Your task to perform on an android device: turn on the 12-hour format for clock Image 0: 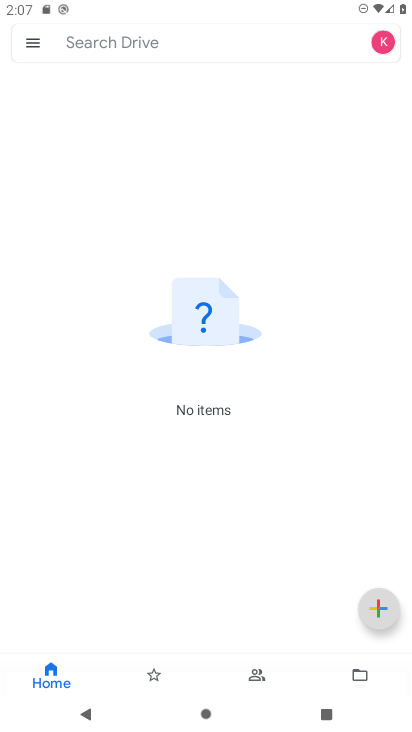
Step 0: press home button
Your task to perform on an android device: turn on the 12-hour format for clock Image 1: 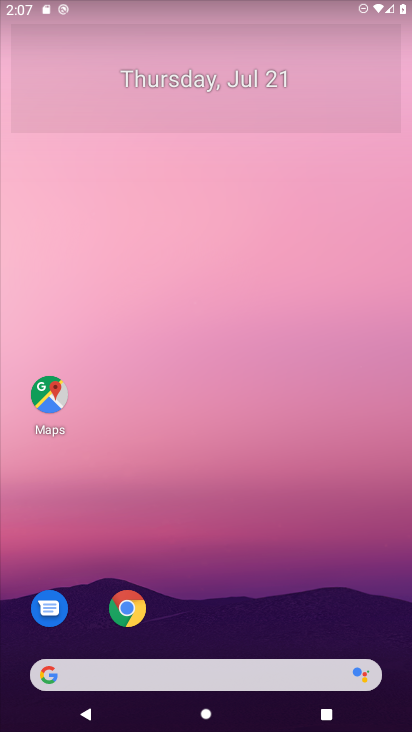
Step 1: drag from (232, 595) to (226, 158)
Your task to perform on an android device: turn on the 12-hour format for clock Image 2: 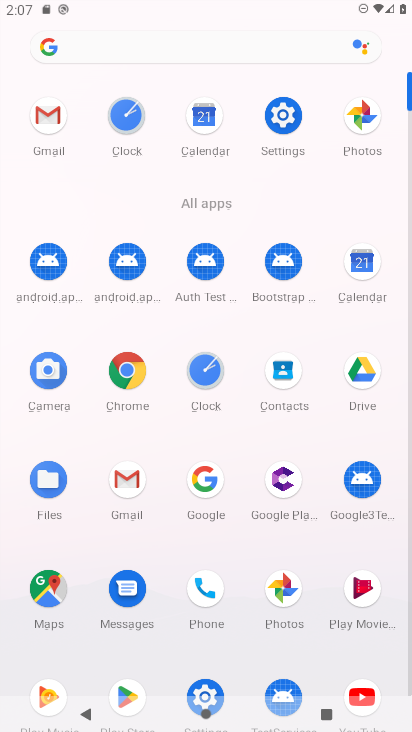
Step 2: click (116, 138)
Your task to perform on an android device: turn on the 12-hour format for clock Image 3: 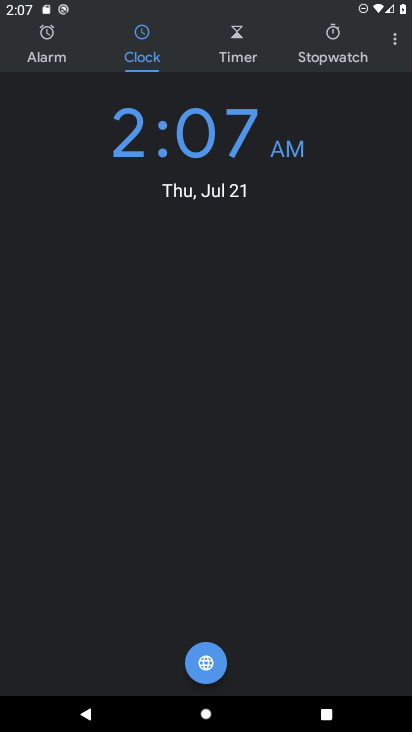
Step 3: click (389, 50)
Your task to perform on an android device: turn on the 12-hour format for clock Image 4: 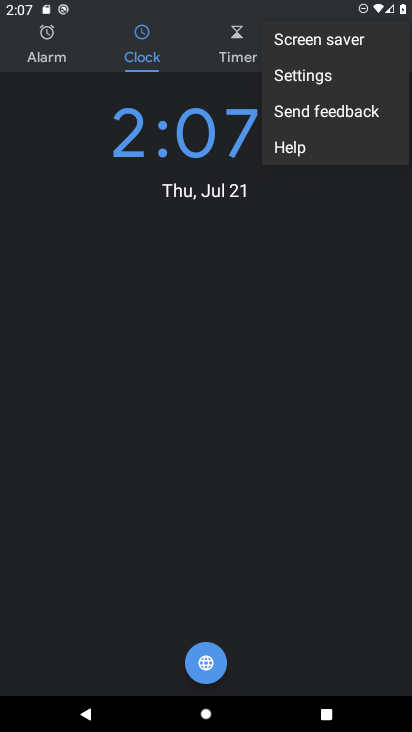
Step 4: click (313, 77)
Your task to perform on an android device: turn on the 12-hour format for clock Image 5: 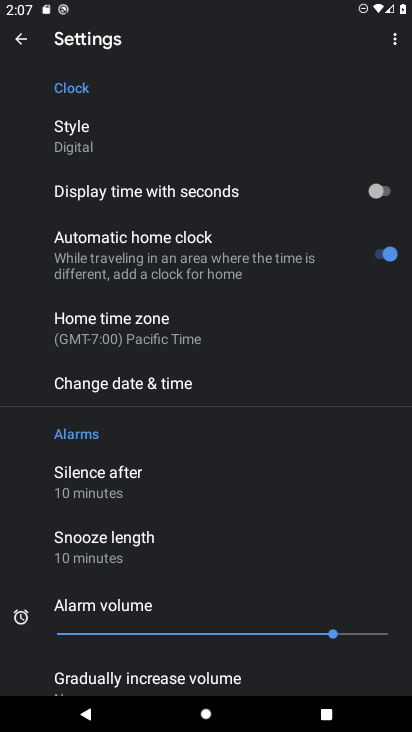
Step 5: drag from (188, 554) to (196, 335)
Your task to perform on an android device: turn on the 12-hour format for clock Image 6: 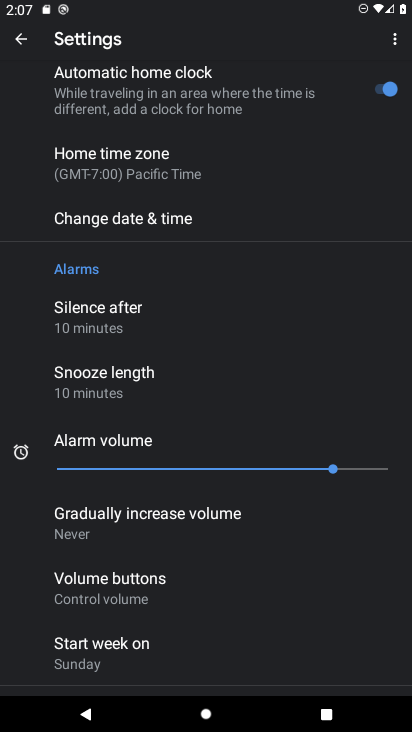
Step 6: click (166, 224)
Your task to perform on an android device: turn on the 12-hour format for clock Image 7: 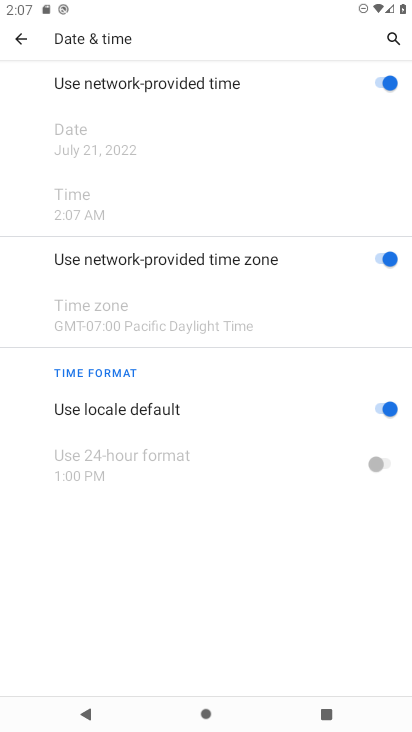
Step 7: task complete